Your task to perform on an android device: manage bookmarks in the chrome app Image 0: 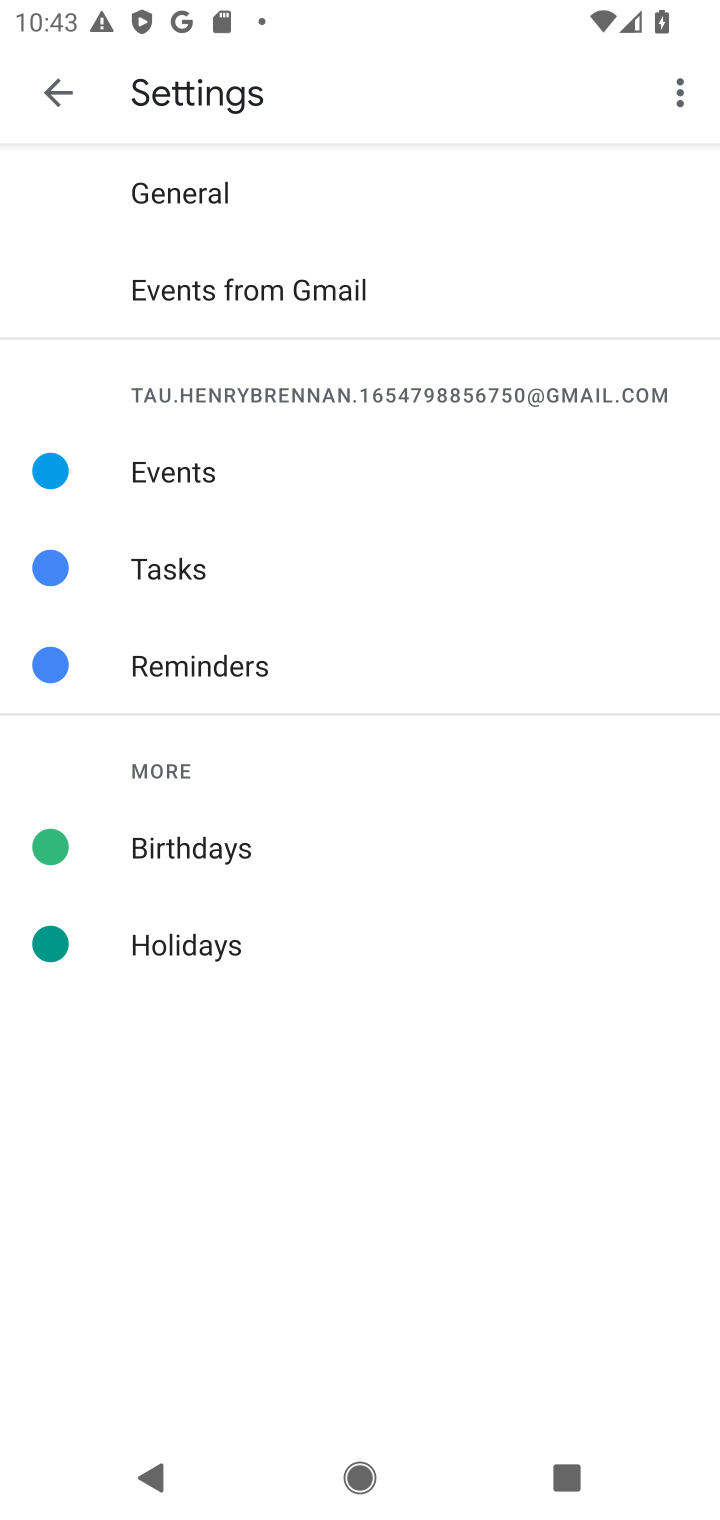
Step 0: press home button
Your task to perform on an android device: manage bookmarks in the chrome app Image 1: 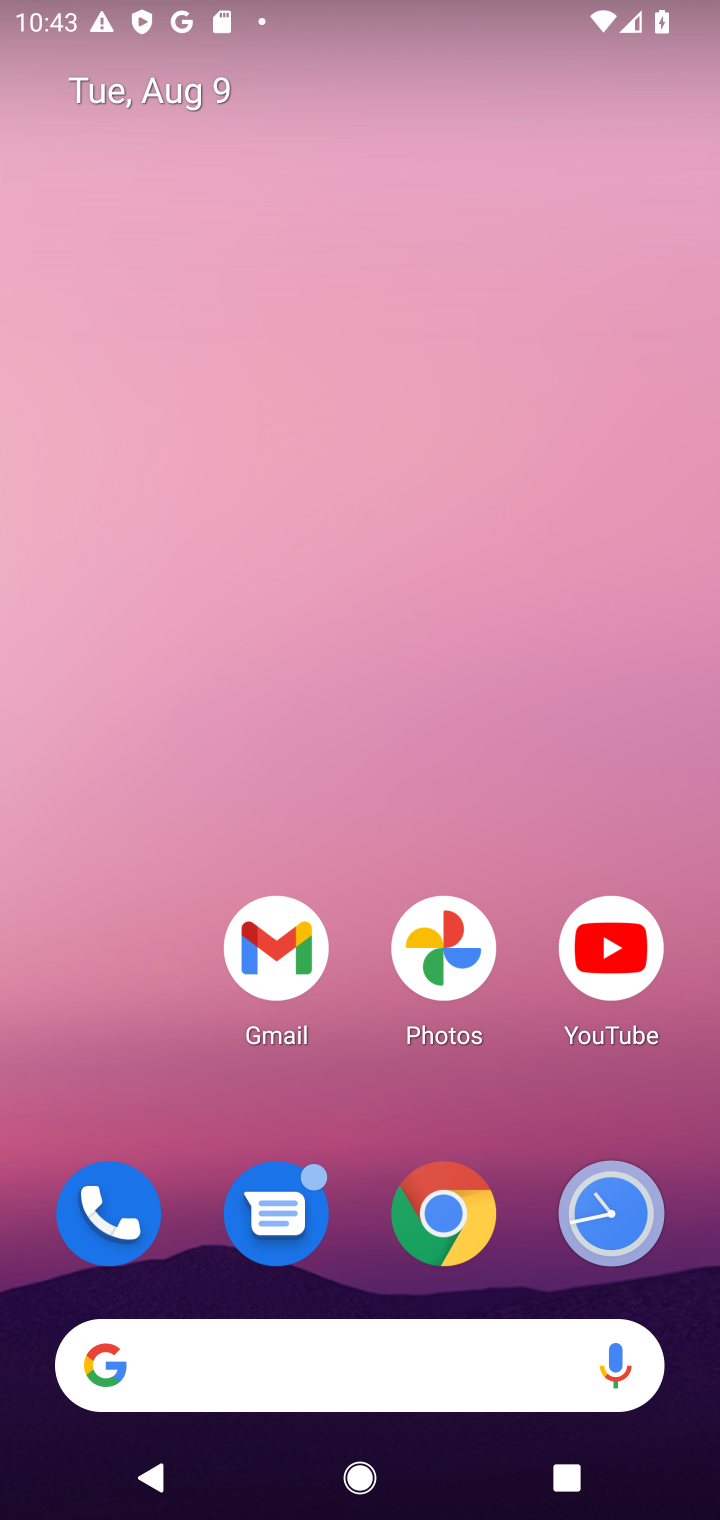
Step 1: click (408, 1236)
Your task to perform on an android device: manage bookmarks in the chrome app Image 2: 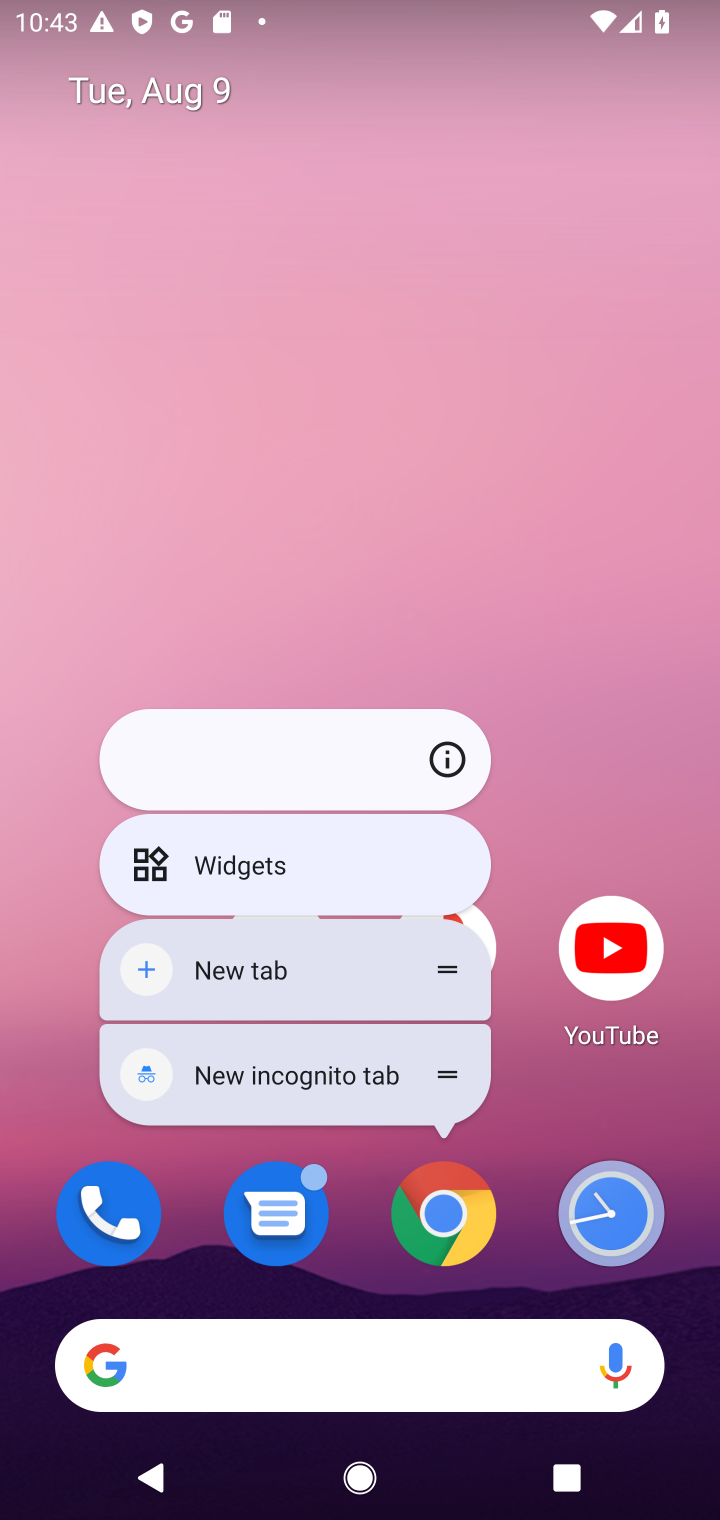
Step 2: click (391, 1222)
Your task to perform on an android device: manage bookmarks in the chrome app Image 3: 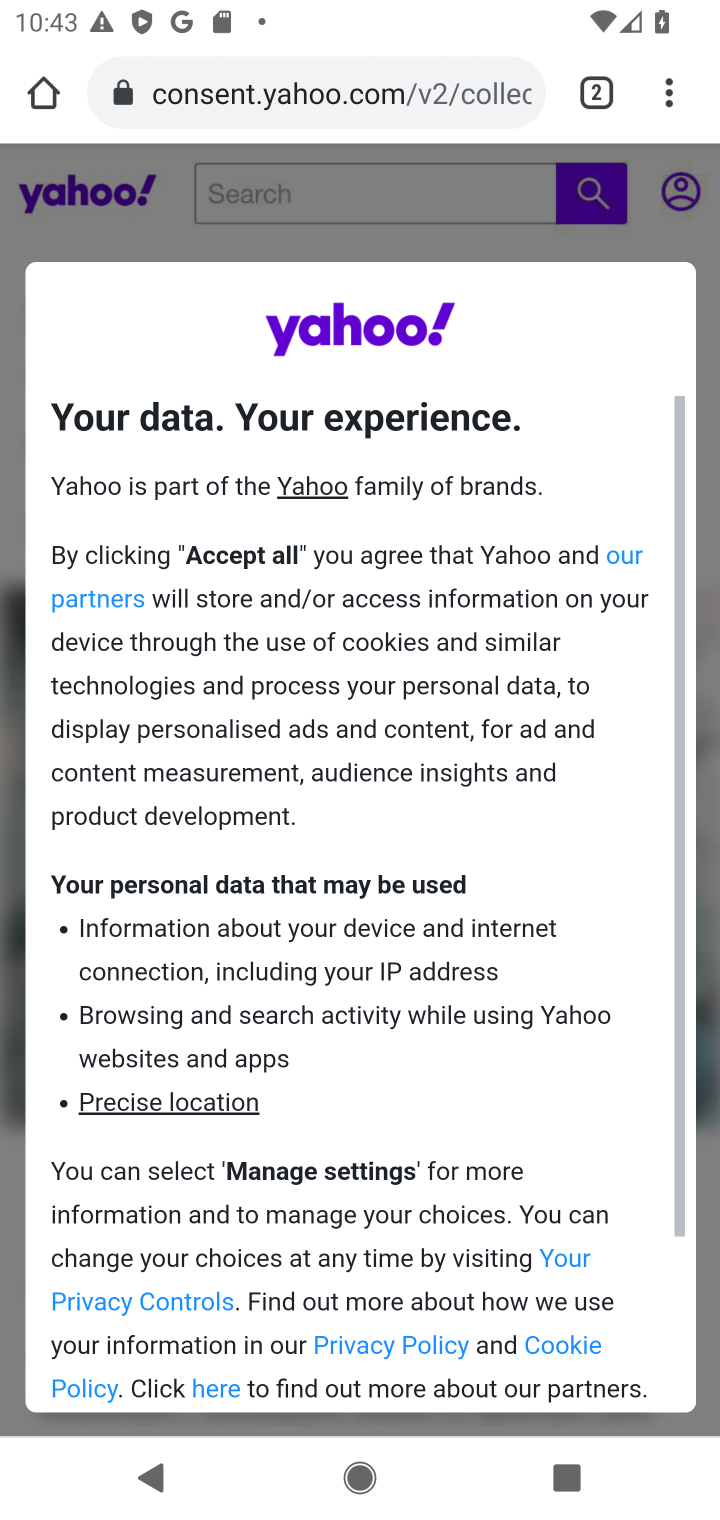
Step 3: click (654, 76)
Your task to perform on an android device: manage bookmarks in the chrome app Image 4: 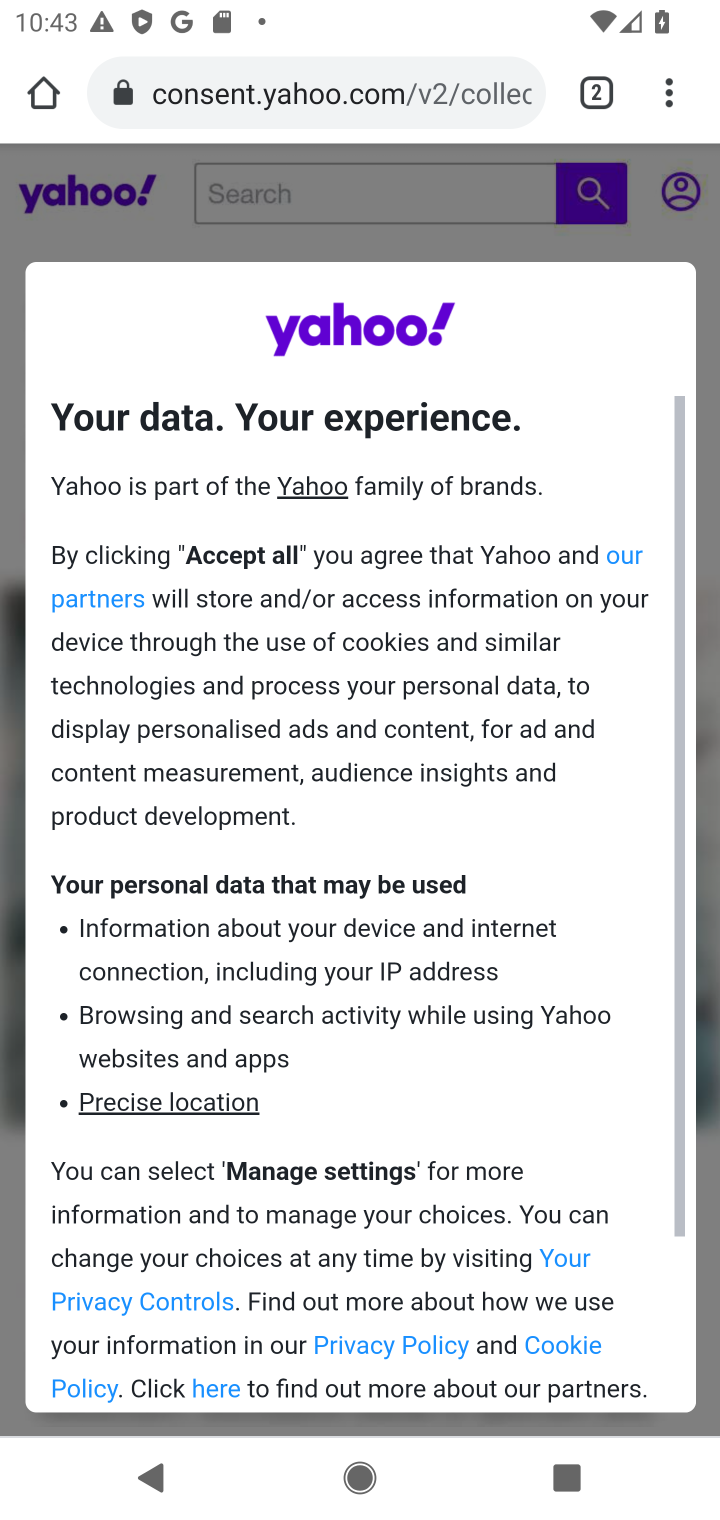
Step 4: click (662, 99)
Your task to perform on an android device: manage bookmarks in the chrome app Image 5: 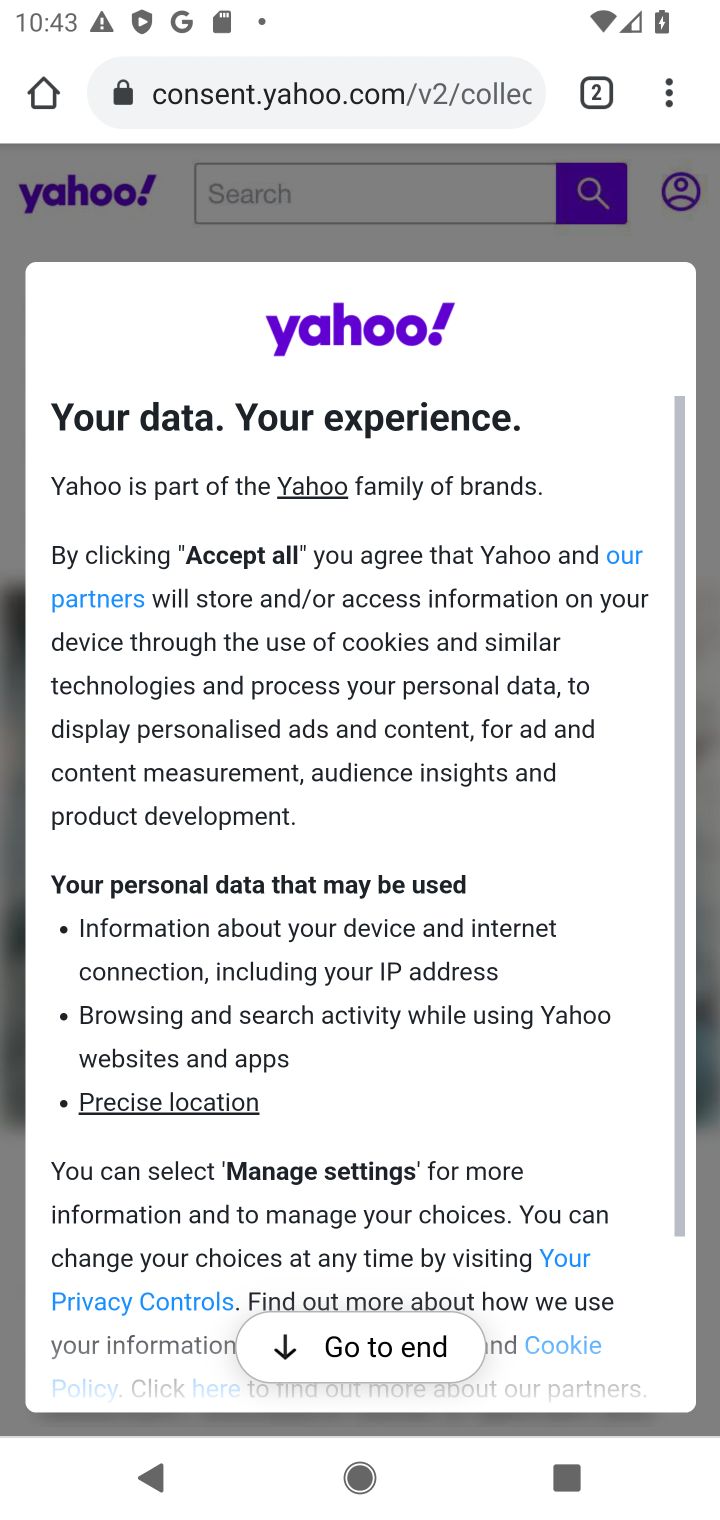
Step 5: drag from (662, 110) to (423, 664)
Your task to perform on an android device: manage bookmarks in the chrome app Image 6: 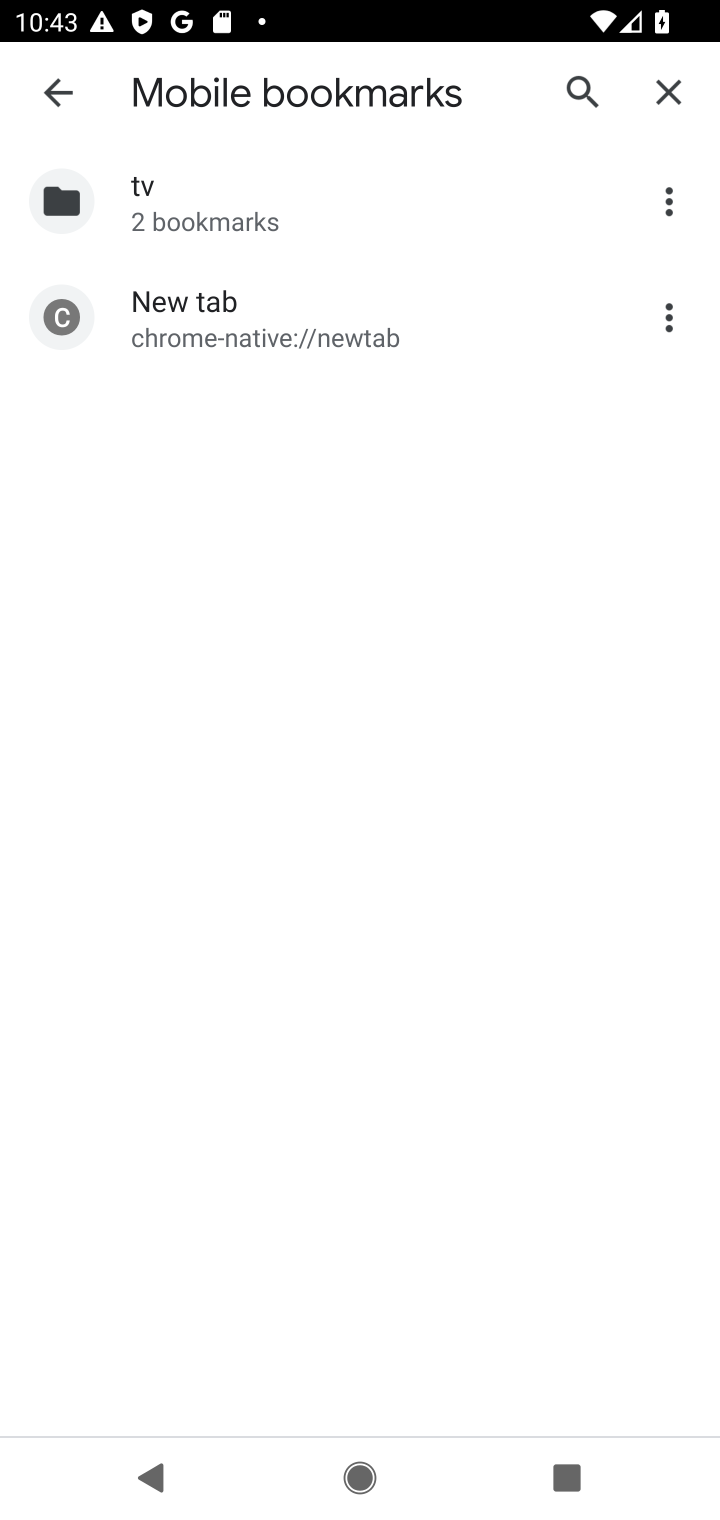
Step 6: click (672, 260)
Your task to perform on an android device: manage bookmarks in the chrome app Image 7: 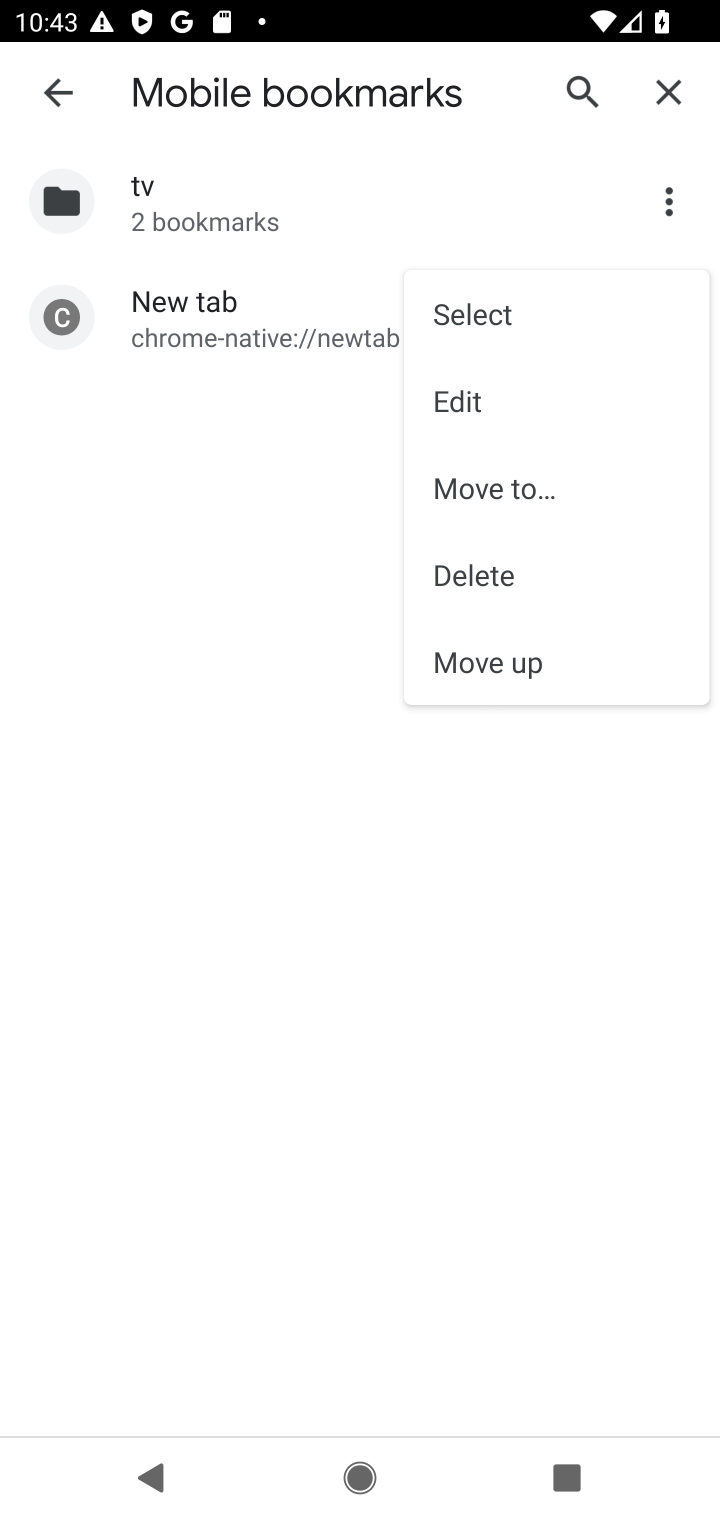
Step 7: click (437, 398)
Your task to perform on an android device: manage bookmarks in the chrome app Image 8: 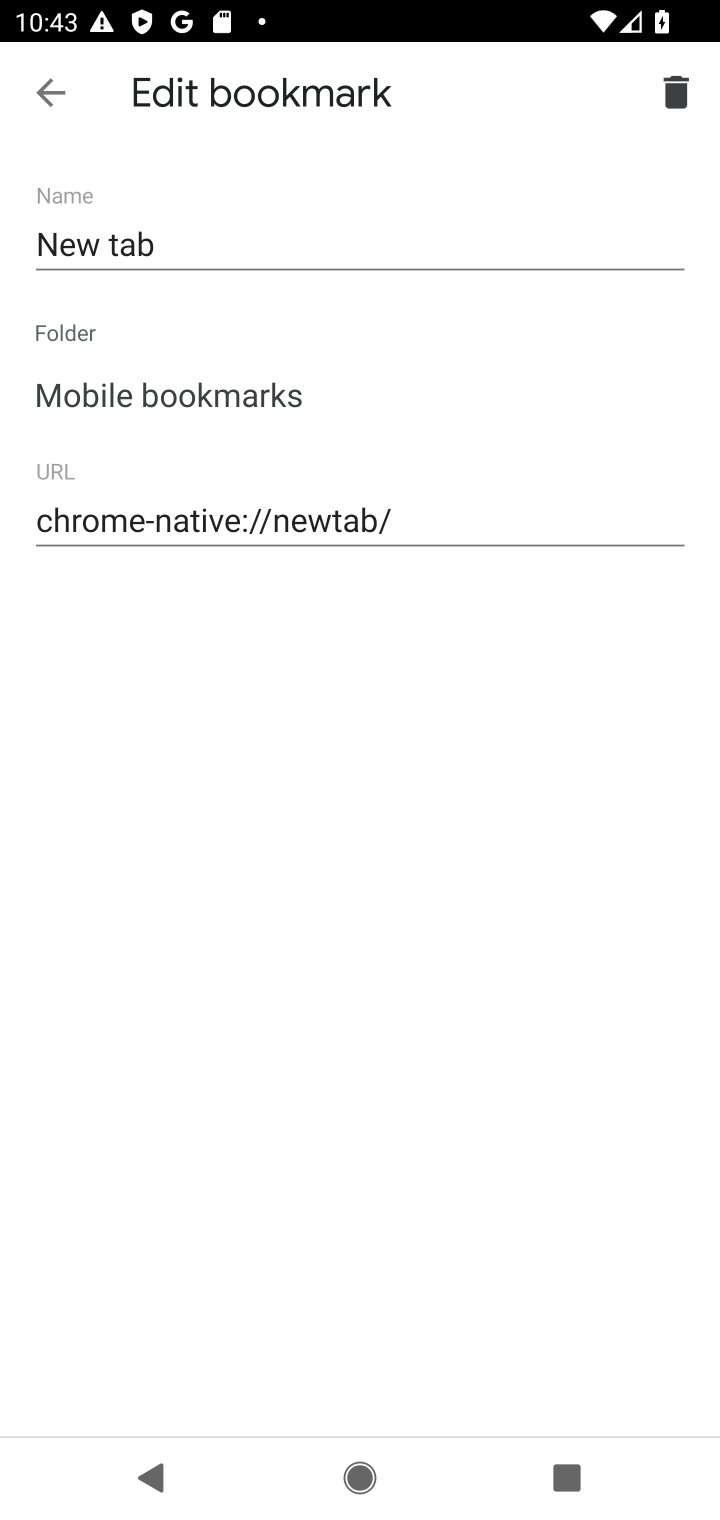
Step 8: click (663, 67)
Your task to perform on an android device: manage bookmarks in the chrome app Image 9: 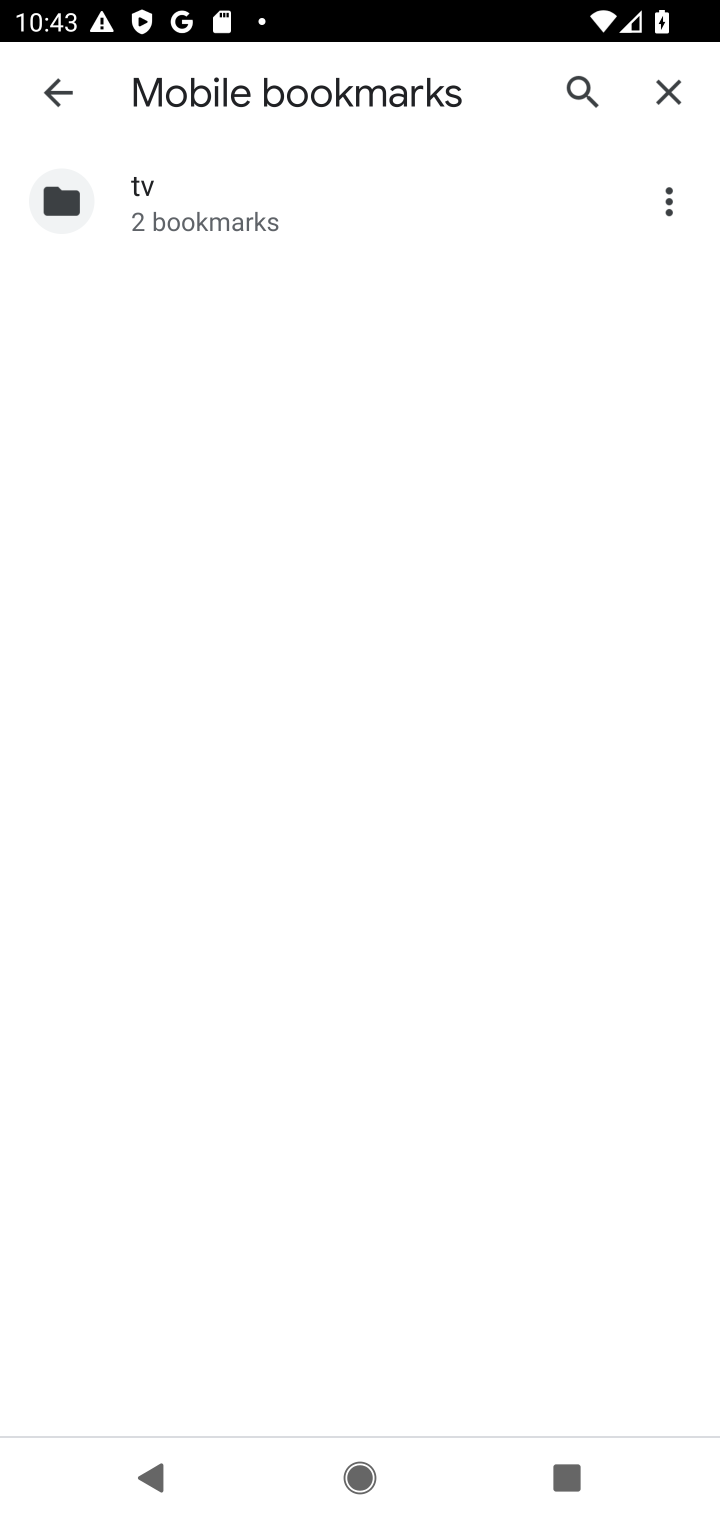
Step 9: task complete